Your task to perform on an android device: Do I have any events tomorrow? Image 0: 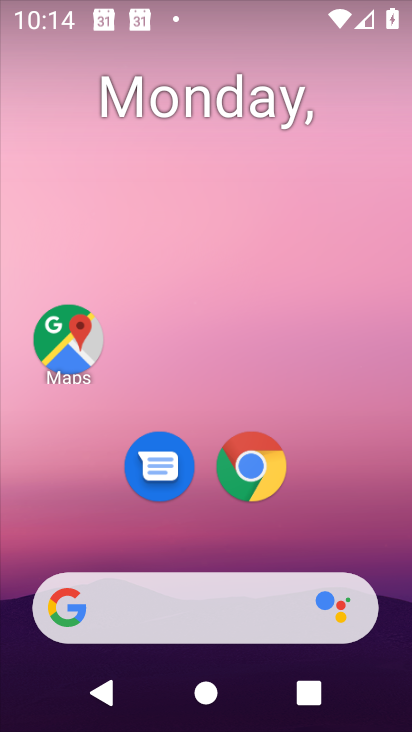
Step 0: drag from (360, 549) to (235, 181)
Your task to perform on an android device: Do I have any events tomorrow? Image 1: 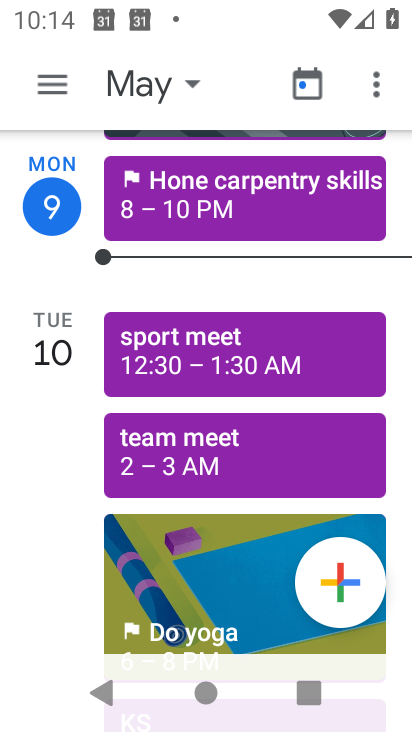
Step 1: press home button
Your task to perform on an android device: Do I have any events tomorrow? Image 2: 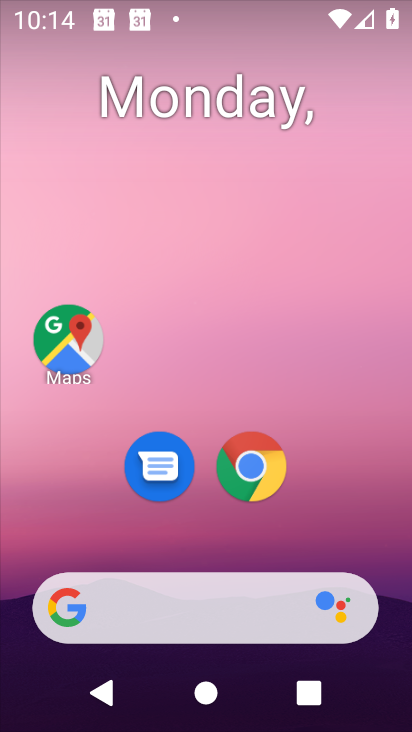
Step 2: drag from (287, 383) to (166, 10)
Your task to perform on an android device: Do I have any events tomorrow? Image 3: 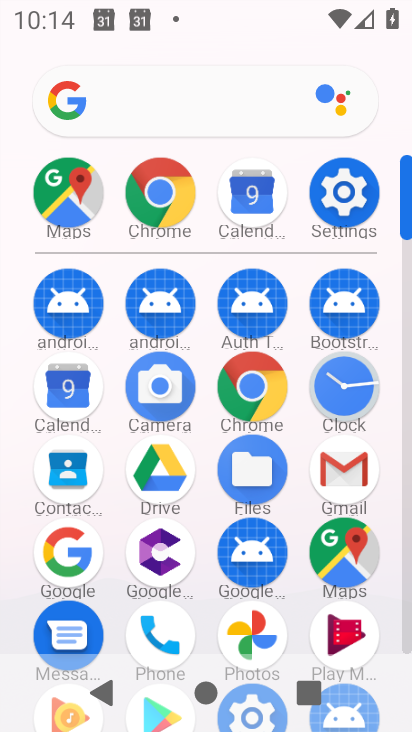
Step 3: click (68, 384)
Your task to perform on an android device: Do I have any events tomorrow? Image 4: 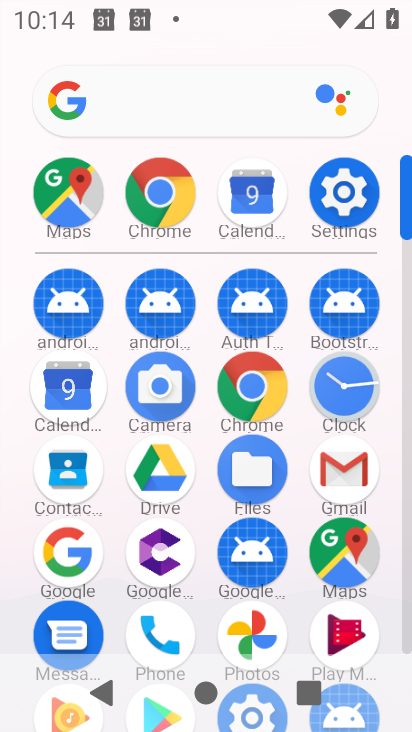
Step 4: click (68, 384)
Your task to perform on an android device: Do I have any events tomorrow? Image 5: 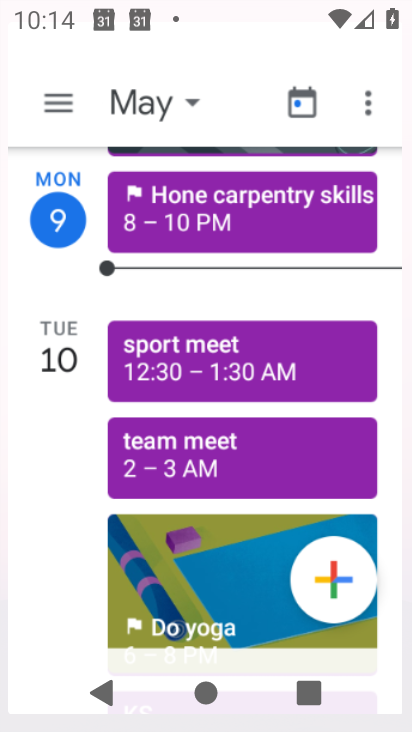
Step 5: click (68, 384)
Your task to perform on an android device: Do I have any events tomorrow? Image 6: 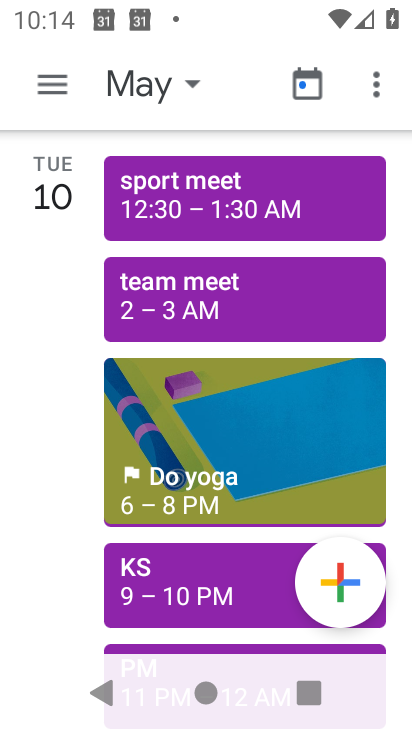
Step 6: drag from (164, 454) to (158, 132)
Your task to perform on an android device: Do I have any events tomorrow? Image 7: 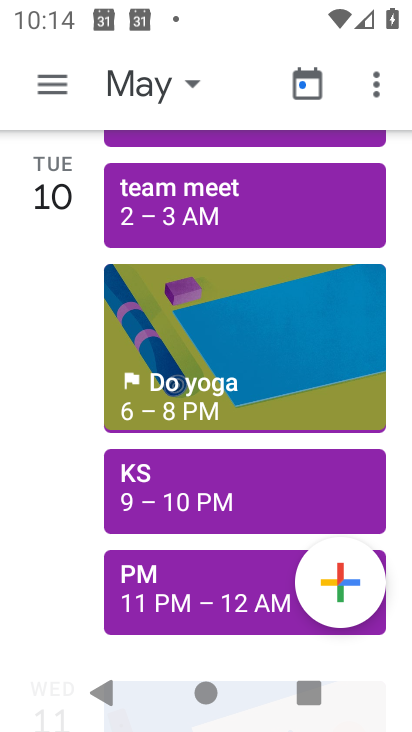
Step 7: drag from (194, 495) to (185, 276)
Your task to perform on an android device: Do I have any events tomorrow? Image 8: 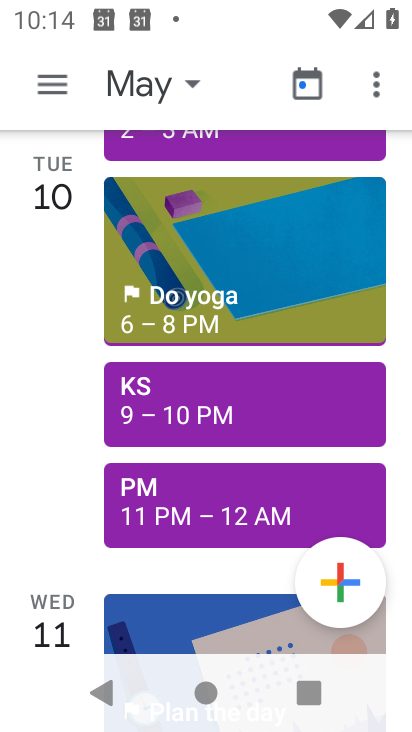
Step 8: drag from (212, 427) to (210, 177)
Your task to perform on an android device: Do I have any events tomorrow? Image 9: 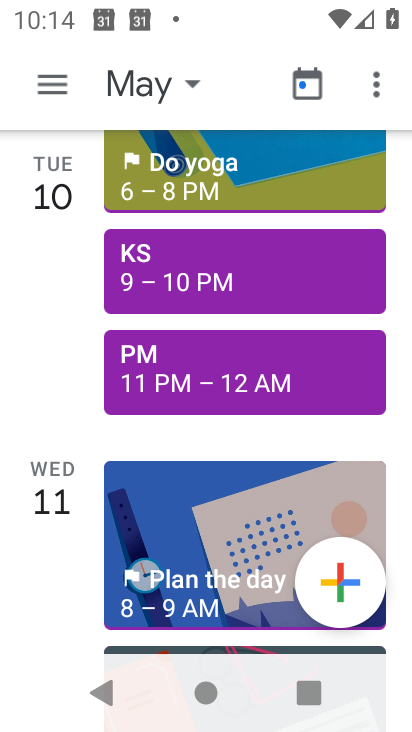
Step 9: drag from (215, 326) to (191, 54)
Your task to perform on an android device: Do I have any events tomorrow? Image 10: 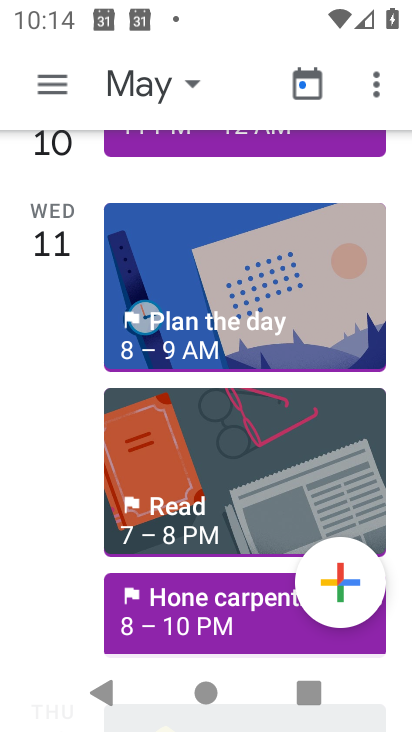
Step 10: click (167, 249)
Your task to perform on an android device: Do I have any events tomorrow? Image 11: 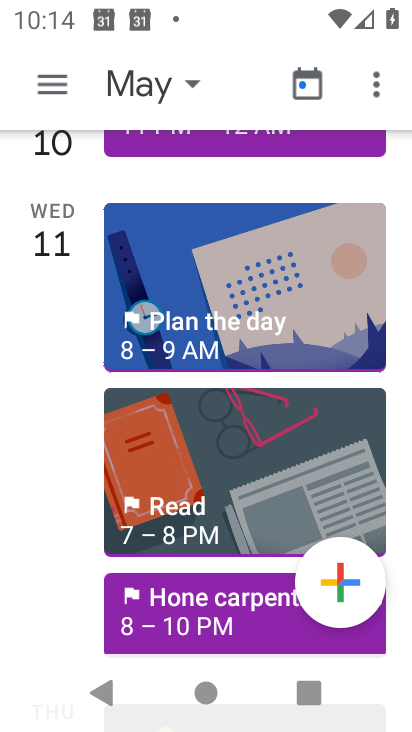
Step 11: click (179, 272)
Your task to perform on an android device: Do I have any events tomorrow? Image 12: 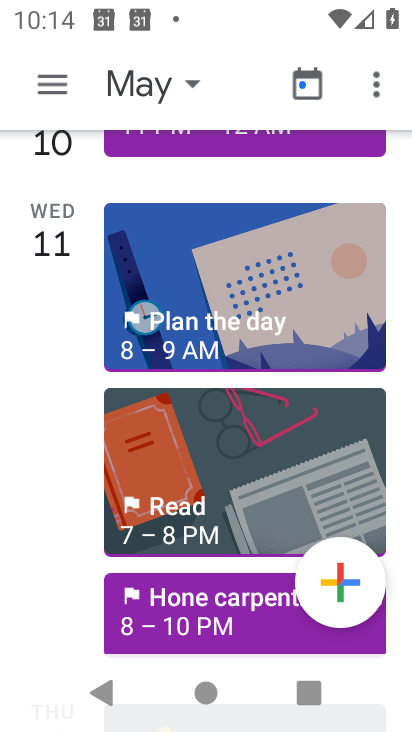
Step 12: click (179, 272)
Your task to perform on an android device: Do I have any events tomorrow? Image 13: 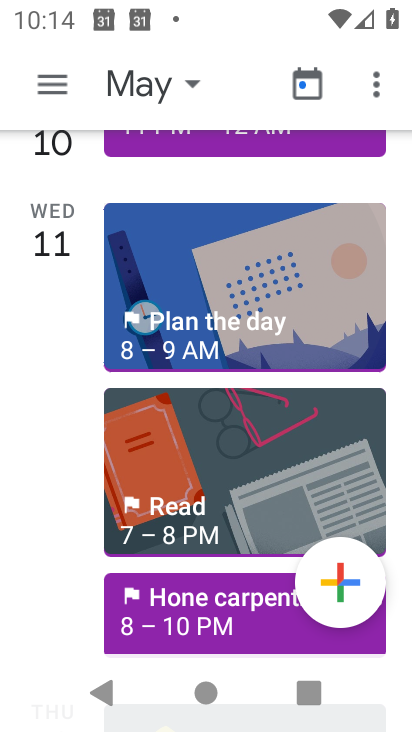
Step 13: click (179, 272)
Your task to perform on an android device: Do I have any events tomorrow? Image 14: 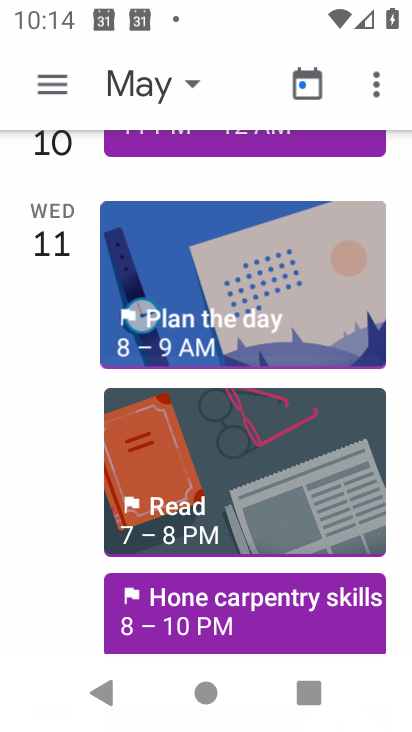
Step 14: click (179, 272)
Your task to perform on an android device: Do I have any events tomorrow? Image 15: 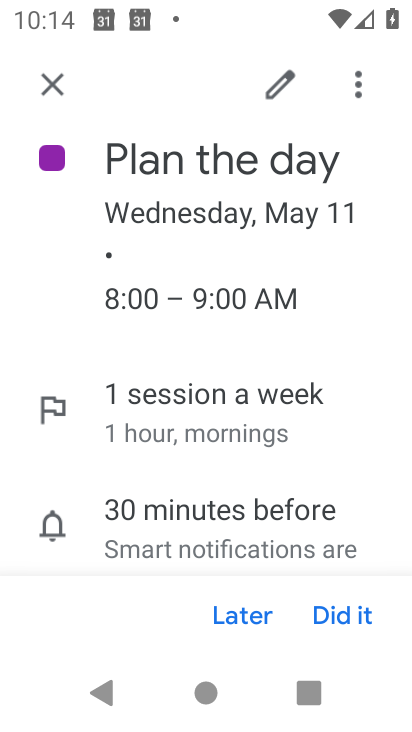
Step 15: click (179, 273)
Your task to perform on an android device: Do I have any events tomorrow? Image 16: 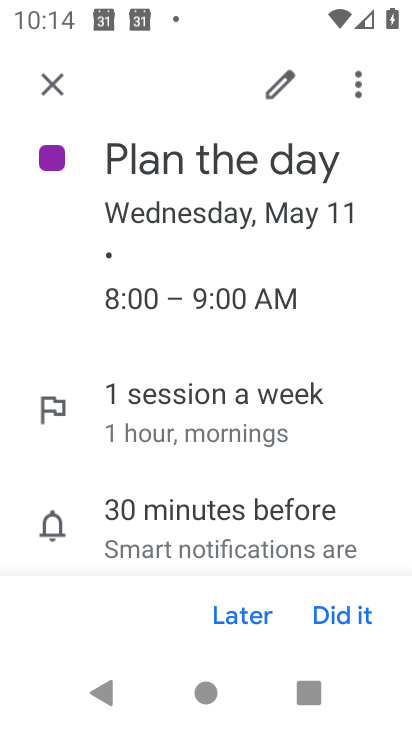
Step 16: task complete